Your task to perform on an android device: install app "Messenger Lite" Image 0: 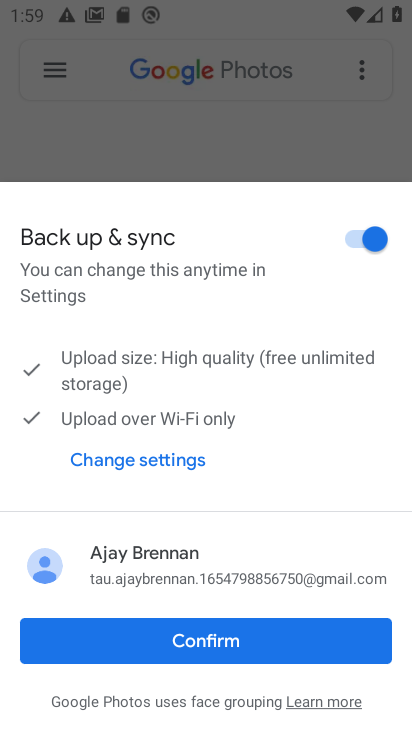
Step 0: press home button
Your task to perform on an android device: install app "Messenger Lite" Image 1: 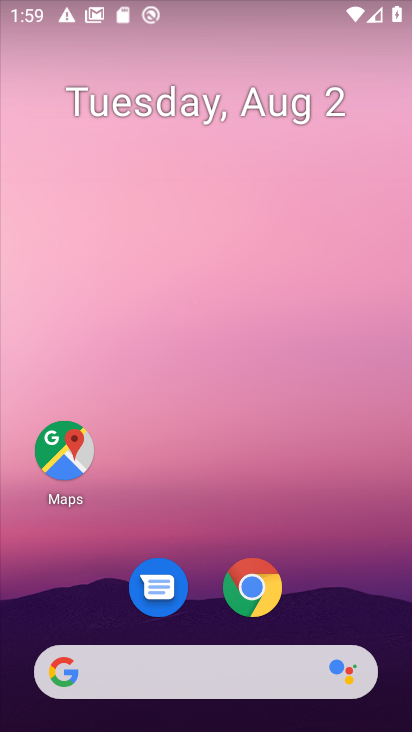
Step 1: drag from (196, 560) to (186, 204)
Your task to perform on an android device: install app "Messenger Lite" Image 2: 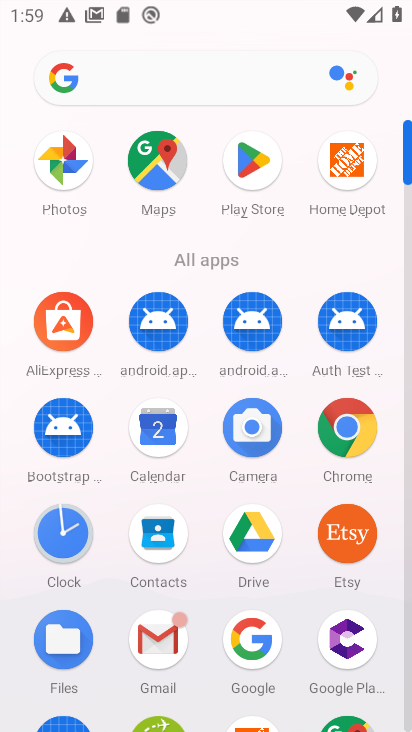
Step 2: click (259, 155)
Your task to perform on an android device: install app "Messenger Lite" Image 3: 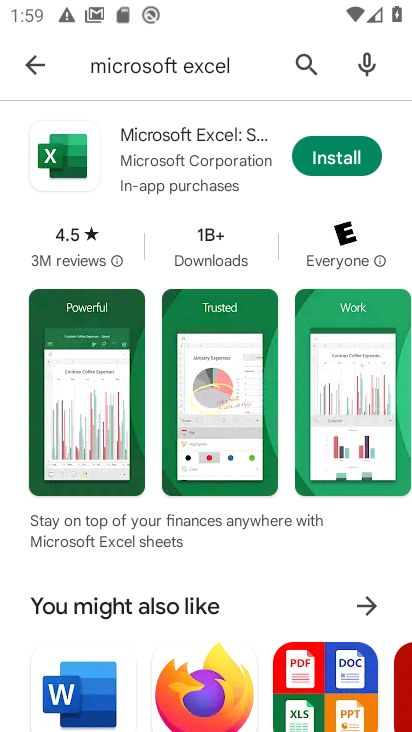
Step 3: drag from (303, 65) to (356, 65)
Your task to perform on an android device: install app "Messenger Lite" Image 4: 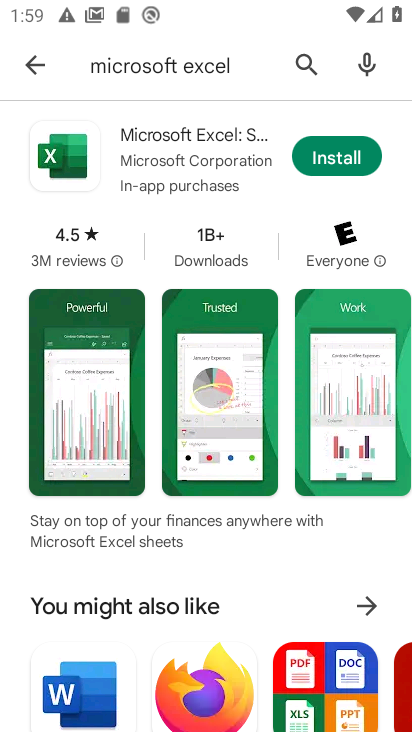
Step 4: click (309, 65)
Your task to perform on an android device: install app "Messenger Lite" Image 5: 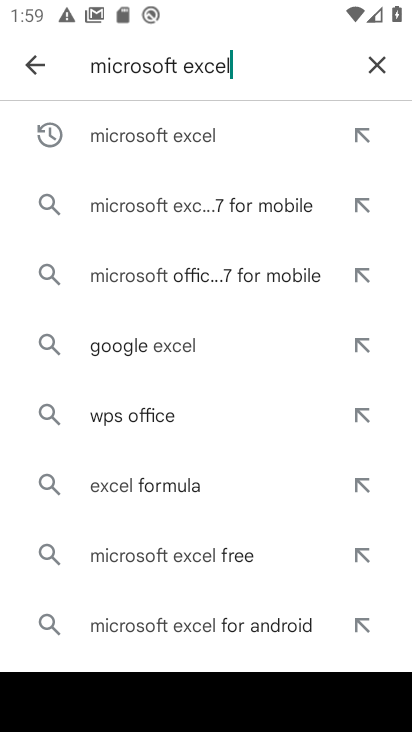
Step 5: click (370, 68)
Your task to perform on an android device: install app "Messenger Lite" Image 6: 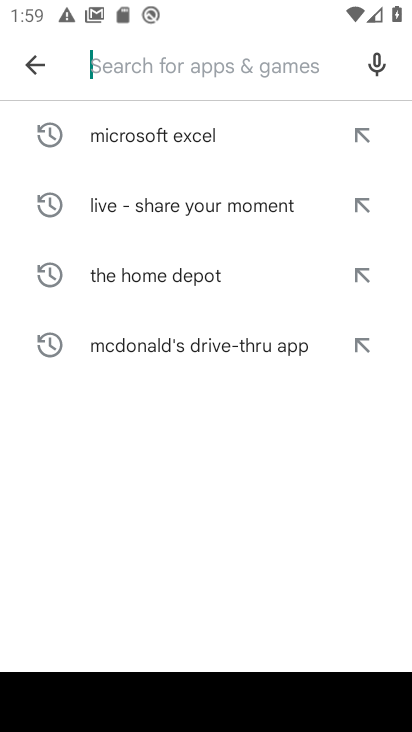
Step 6: type "Messenger Lite"
Your task to perform on an android device: install app "Messenger Lite" Image 7: 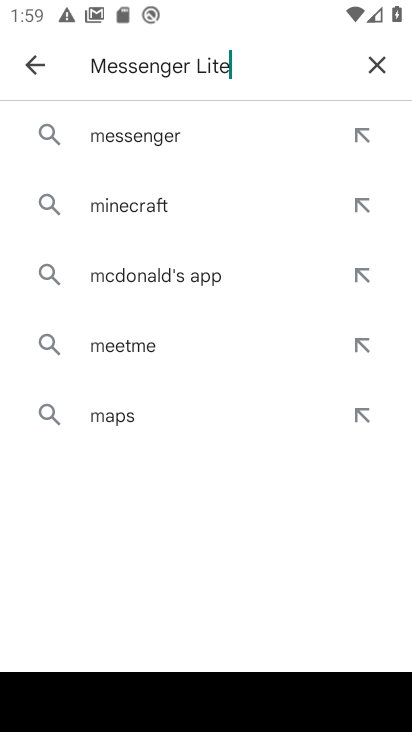
Step 7: type ""
Your task to perform on an android device: install app "Messenger Lite" Image 8: 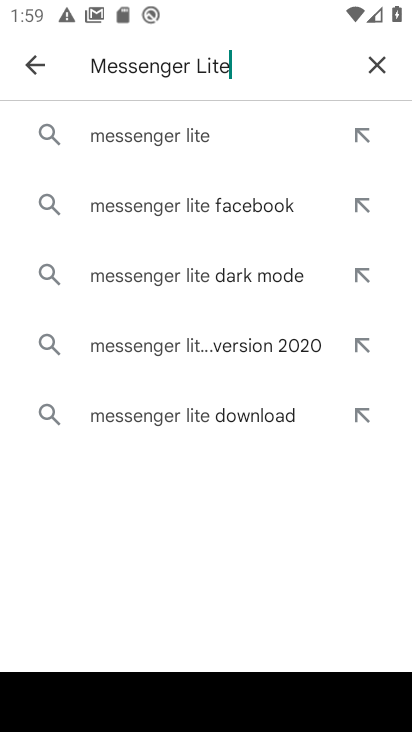
Step 8: click (121, 140)
Your task to perform on an android device: install app "Messenger Lite" Image 9: 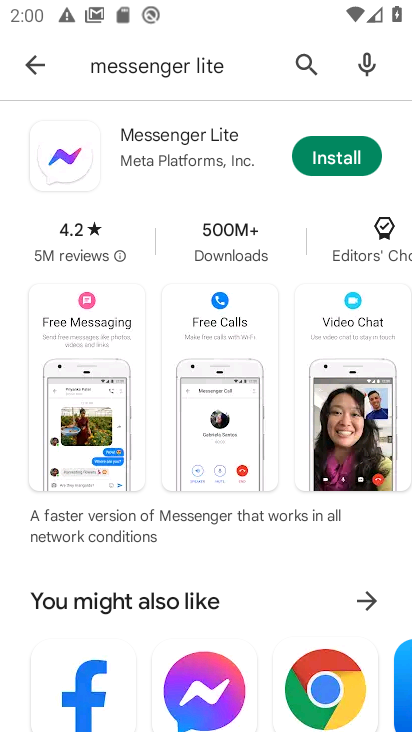
Step 9: click (351, 157)
Your task to perform on an android device: install app "Messenger Lite" Image 10: 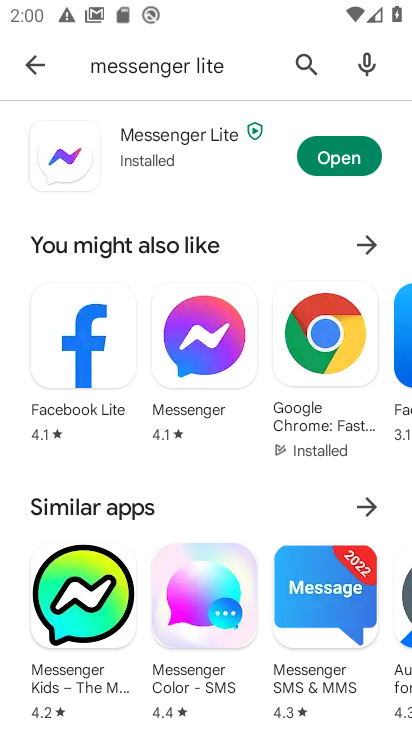
Step 10: task complete